Your task to perform on an android device: What's the weather today? Image 0: 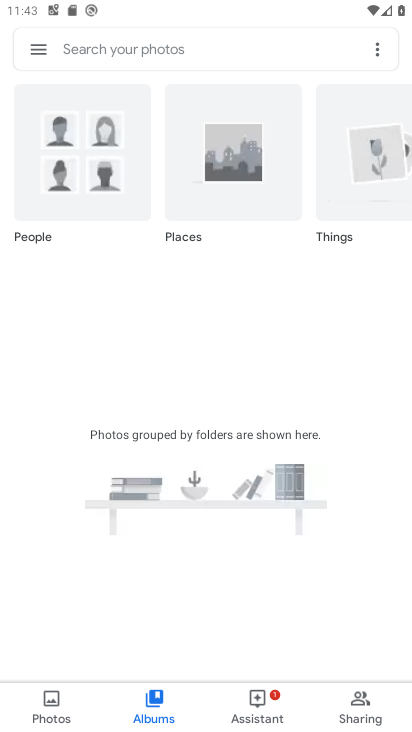
Step 0: press home button
Your task to perform on an android device: What's the weather today? Image 1: 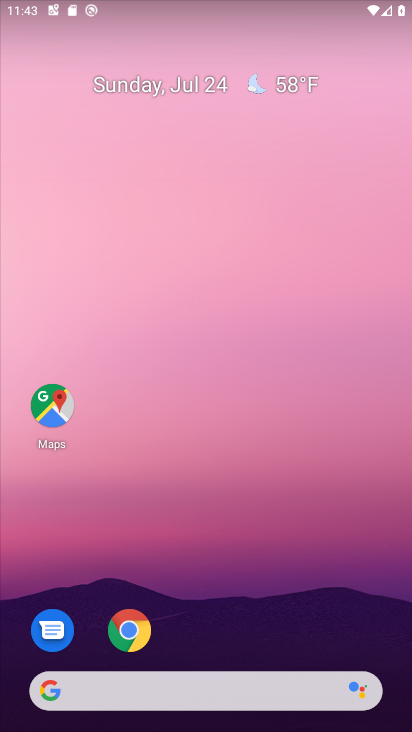
Step 1: click (192, 697)
Your task to perform on an android device: What's the weather today? Image 2: 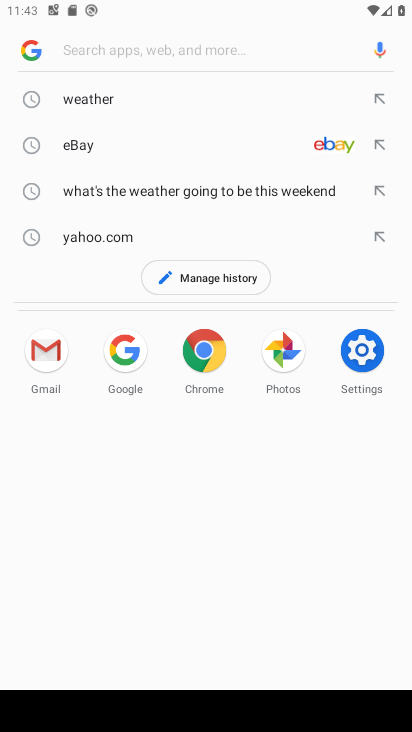
Step 2: click (90, 97)
Your task to perform on an android device: What's the weather today? Image 3: 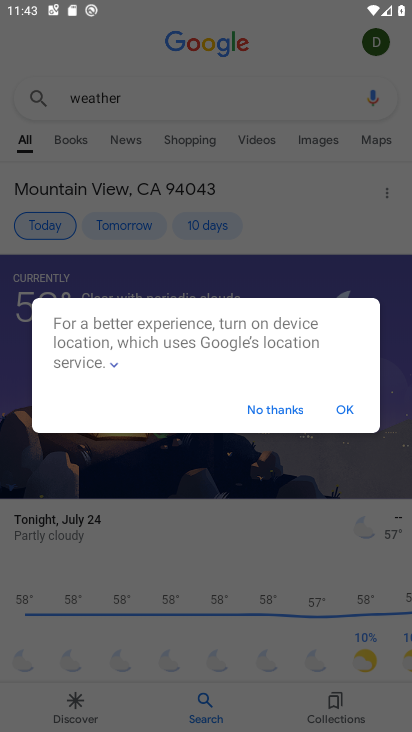
Step 3: click (347, 409)
Your task to perform on an android device: What's the weather today? Image 4: 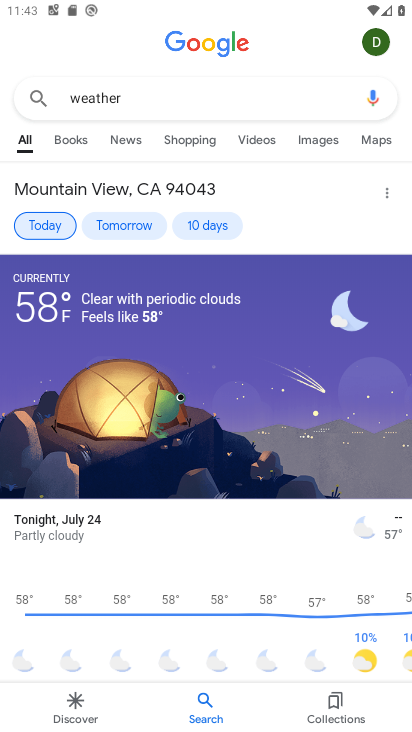
Step 4: task complete